Your task to perform on an android device: turn on notifications settings in the gmail app Image 0: 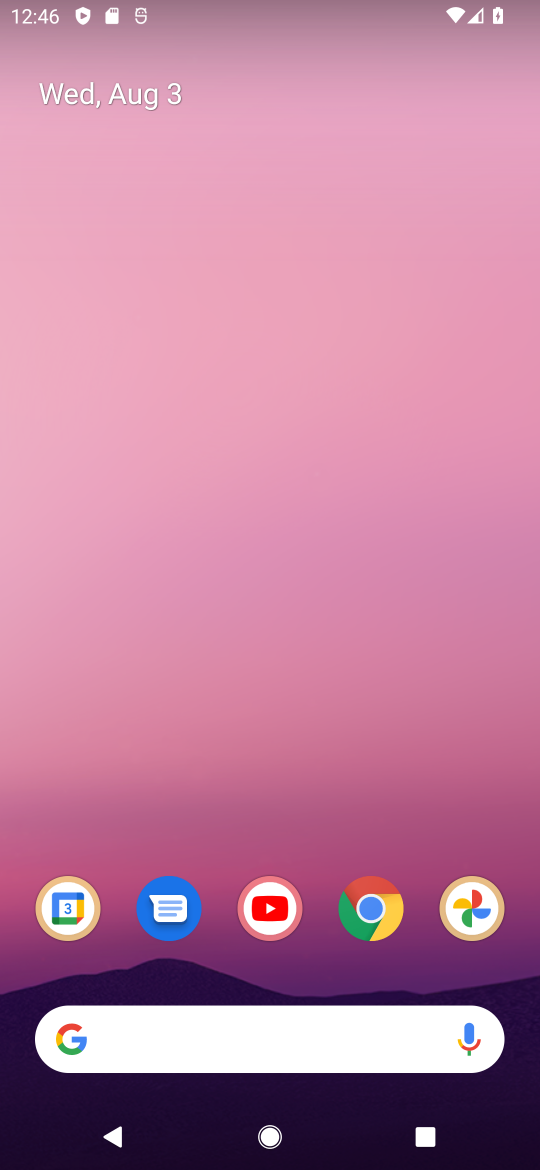
Step 0: drag from (275, 858) to (326, 221)
Your task to perform on an android device: turn on notifications settings in the gmail app Image 1: 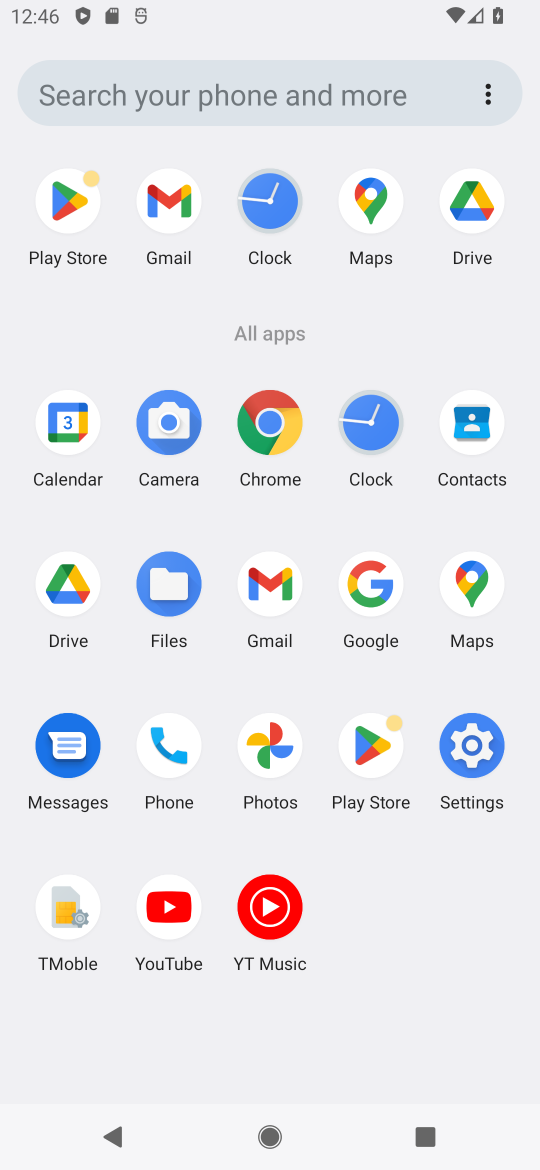
Step 1: click (167, 244)
Your task to perform on an android device: turn on notifications settings in the gmail app Image 2: 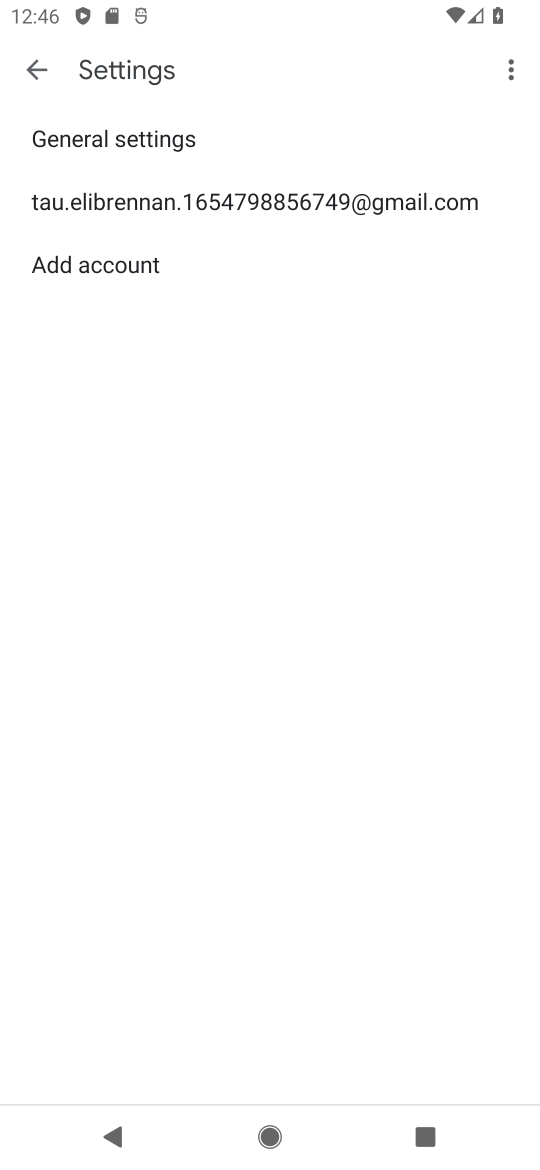
Step 2: click (161, 208)
Your task to perform on an android device: turn on notifications settings in the gmail app Image 3: 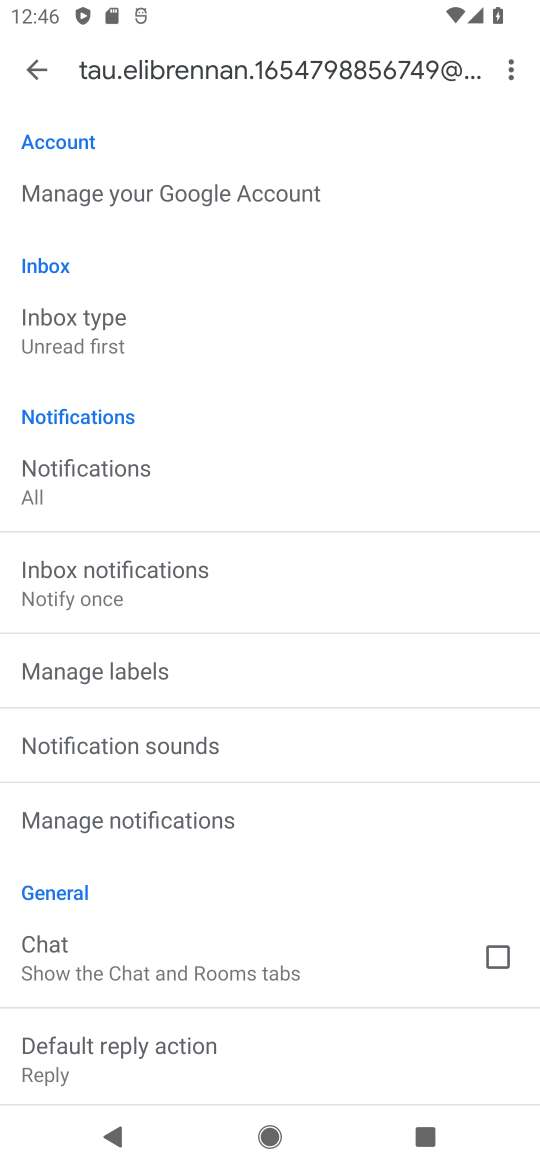
Step 3: click (81, 815)
Your task to perform on an android device: turn on notifications settings in the gmail app Image 4: 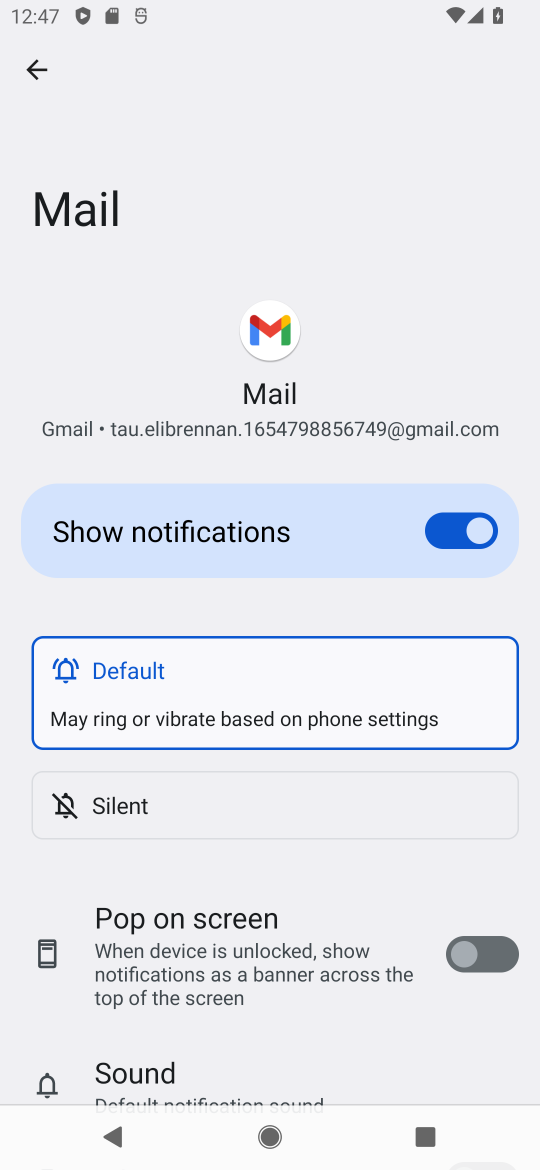
Step 4: task complete